Your task to perform on an android device: Go to Yahoo.com Image 0: 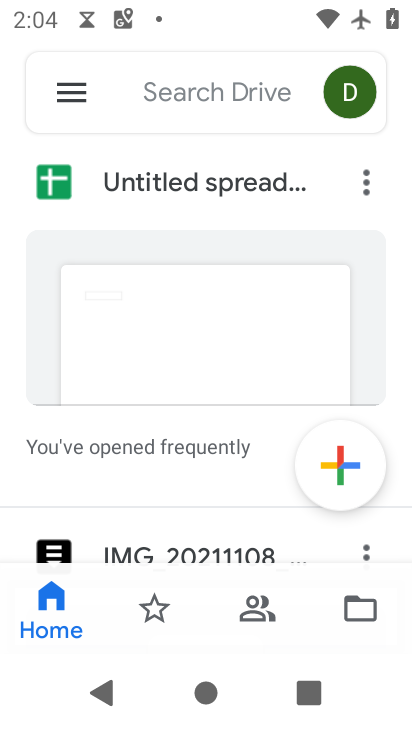
Step 0: press home button
Your task to perform on an android device: Go to Yahoo.com Image 1: 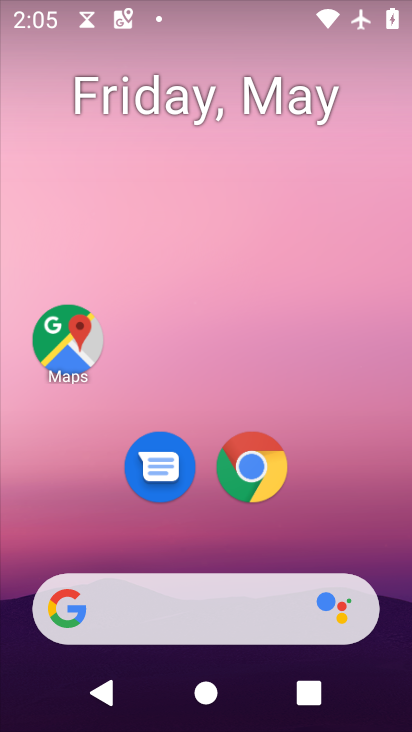
Step 1: click (251, 466)
Your task to perform on an android device: Go to Yahoo.com Image 2: 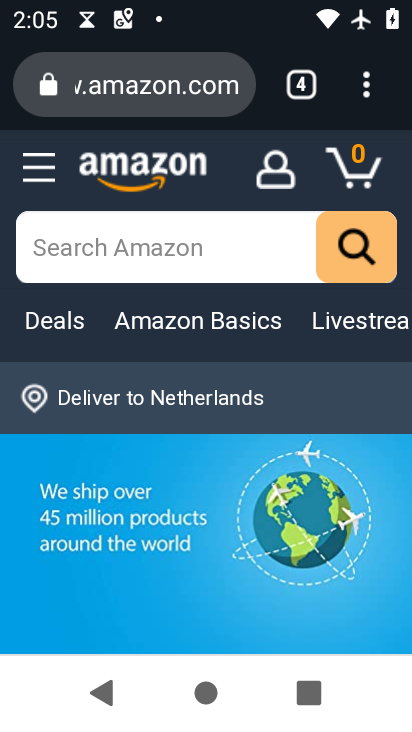
Step 2: click (199, 84)
Your task to perform on an android device: Go to Yahoo.com Image 3: 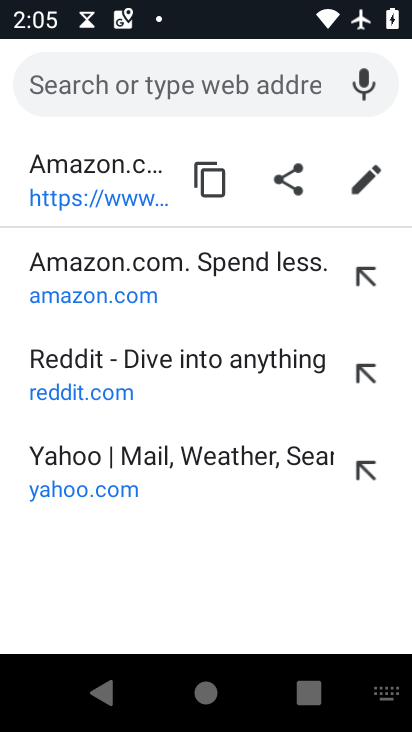
Step 3: click (221, 70)
Your task to perform on an android device: Go to Yahoo.com Image 4: 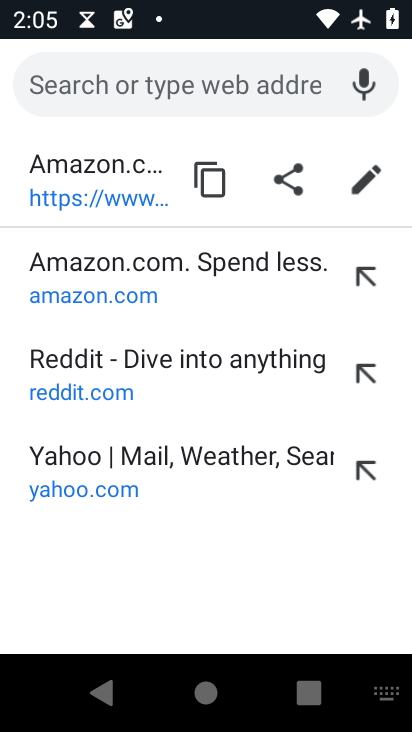
Step 4: type "Yahoo.com"
Your task to perform on an android device: Go to Yahoo.com Image 5: 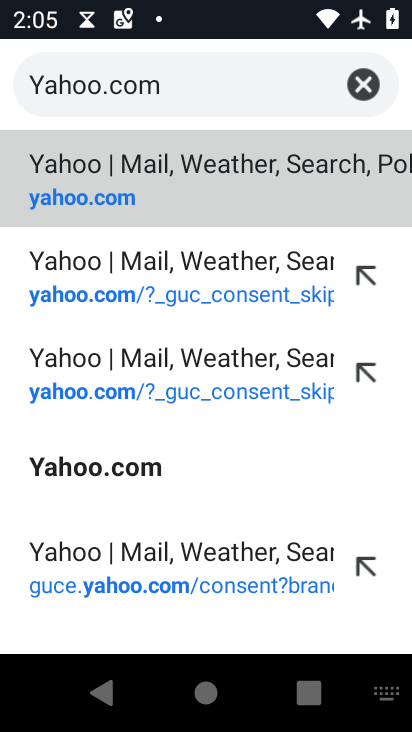
Step 5: click (97, 476)
Your task to perform on an android device: Go to Yahoo.com Image 6: 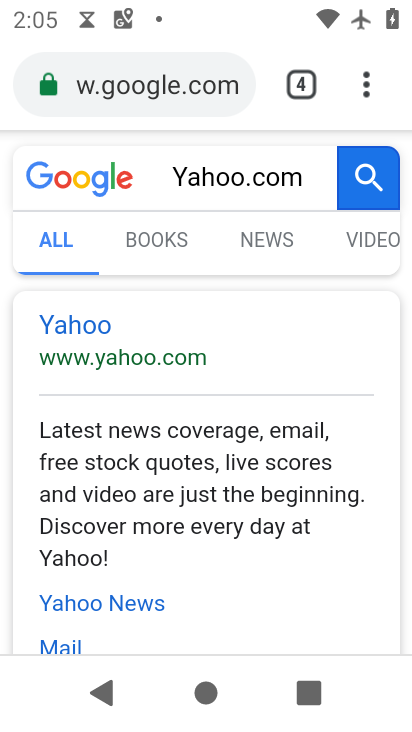
Step 6: click (98, 364)
Your task to perform on an android device: Go to Yahoo.com Image 7: 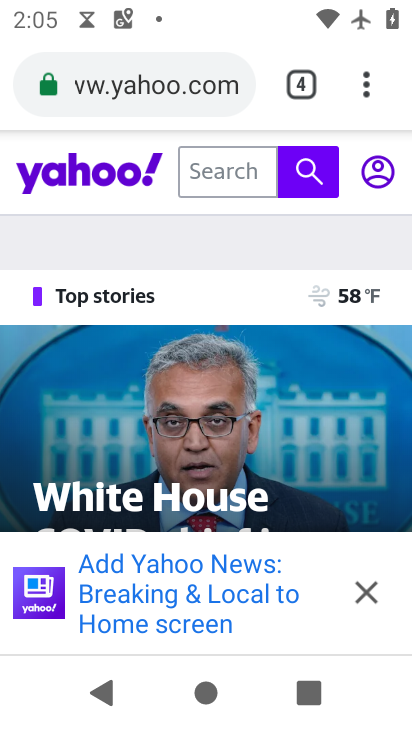
Step 7: task complete